Your task to perform on an android device: Open Maps and search for coffee Image 0: 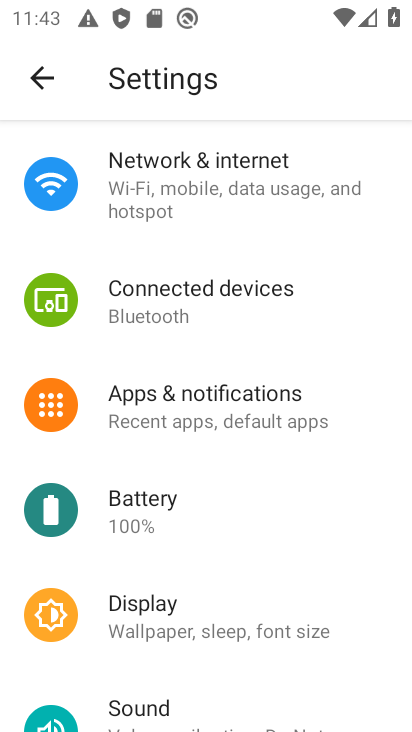
Step 0: press home button
Your task to perform on an android device: Open Maps and search for coffee Image 1: 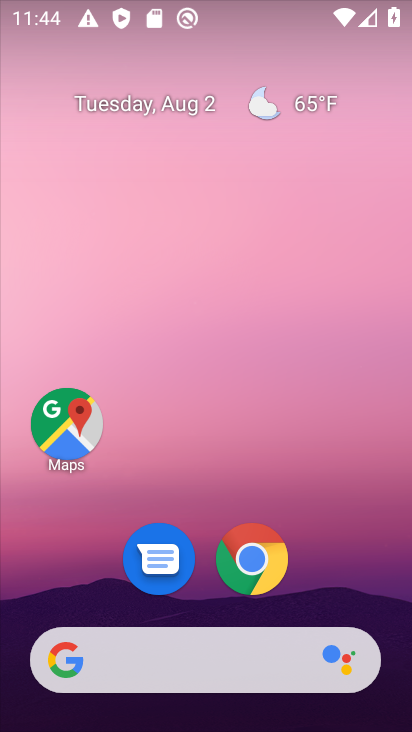
Step 1: click (64, 419)
Your task to perform on an android device: Open Maps and search for coffee Image 2: 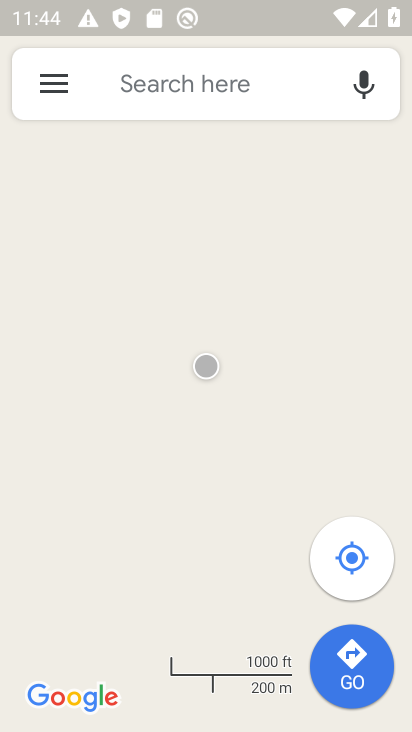
Step 2: click (178, 92)
Your task to perform on an android device: Open Maps and search for coffee Image 3: 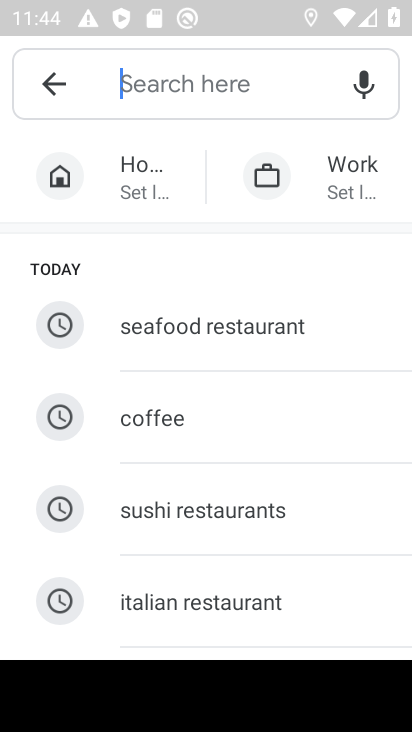
Step 3: type "coffee"
Your task to perform on an android device: Open Maps and search for coffee Image 4: 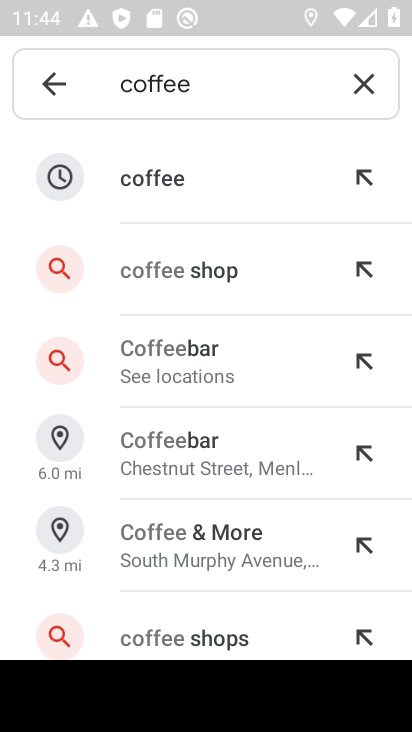
Step 4: click (148, 184)
Your task to perform on an android device: Open Maps and search for coffee Image 5: 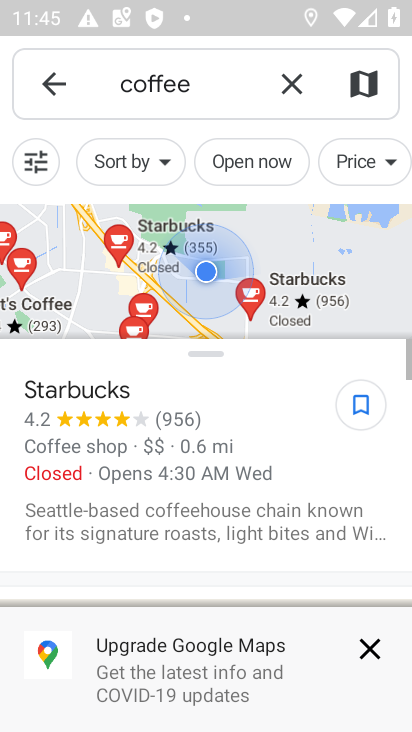
Step 5: task complete